Your task to perform on an android device: Open wifi settings Image 0: 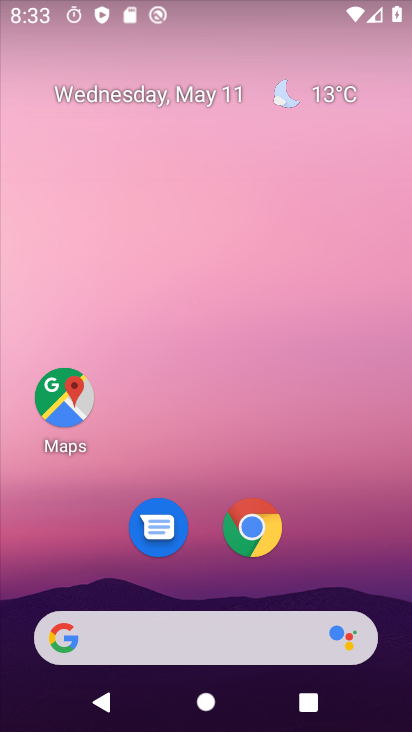
Step 0: drag from (213, 562) to (232, 66)
Your task to perform on an android device: Open wifi settings Image 1: 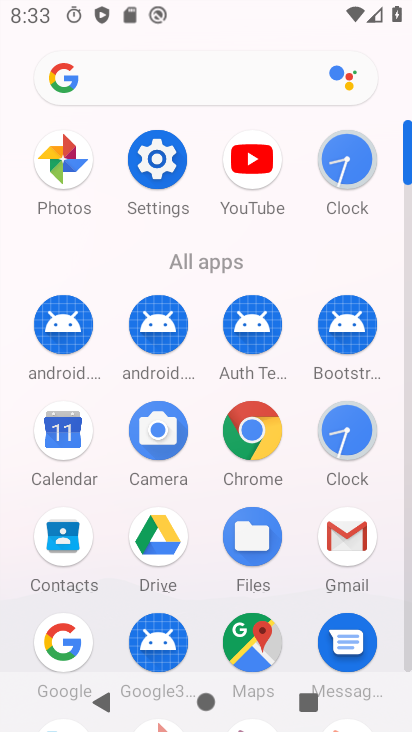
Step 1: click (155, 160)
Your task to perform on an android device: Open wifi settings Image 2: 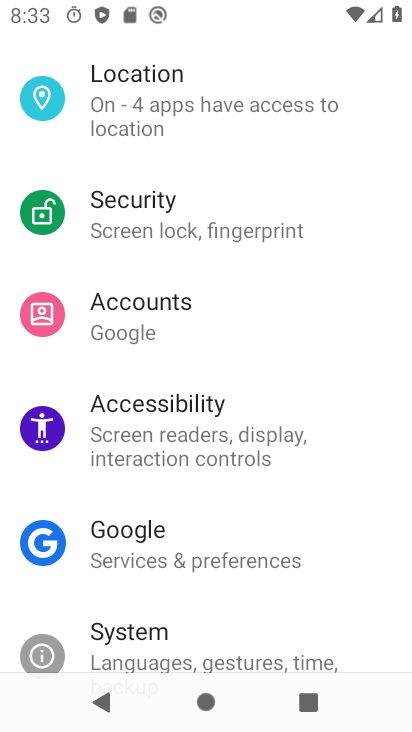
Step 2: drag from (182, 229) to (185, 588)
Your task to perform on an android device: Open wifi settings Image 3: 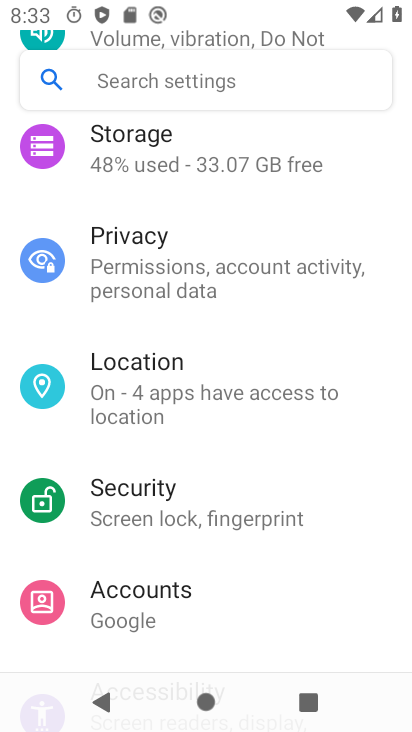
Step 3: drag from (166, 181) to (141, 607)
Your task to perform on an android device: Open wifi settings Image 4: 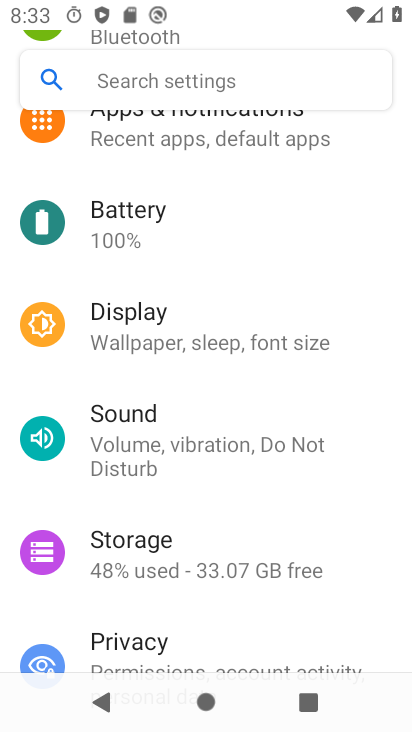
Step 4: drag from (176, 177) to (248, 604)
Your task to perform on an android device: Open wifi settings Image 5: 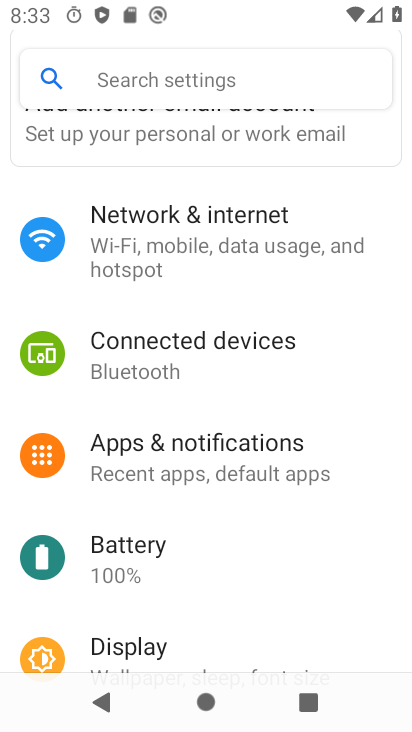
Step 5: click (186, 234)
Your task to perform on an android device: Open wifi settings Image 6: 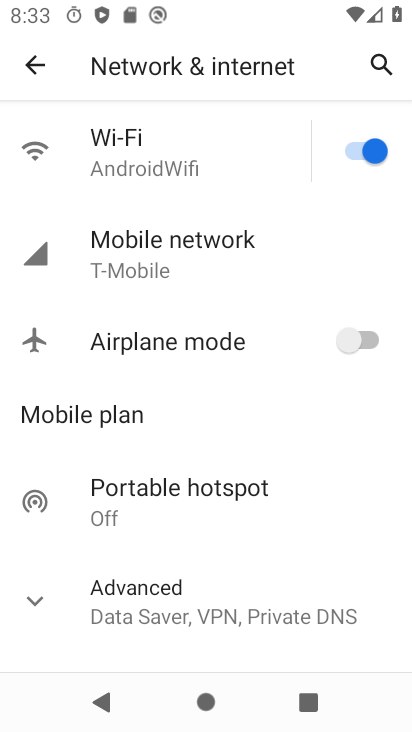
Step 6: click (152, 149)
Your task to perform on an android device: Open wifi settings Image 7: 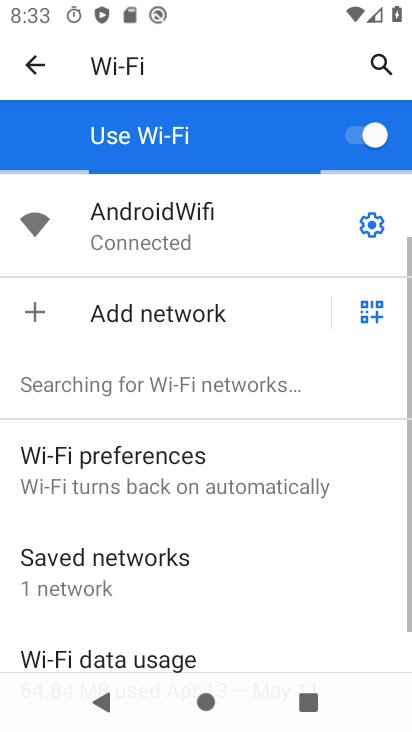
Step 7: click (372, 228)
Your task to perform on an android device: Open wifi settings Image 8: 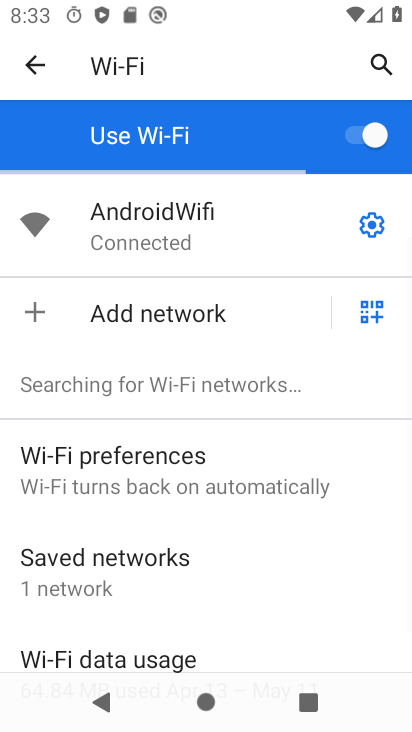
Step 8: click (365, 225)
Your task to perform on an android device: Open wifi settings Image 9: 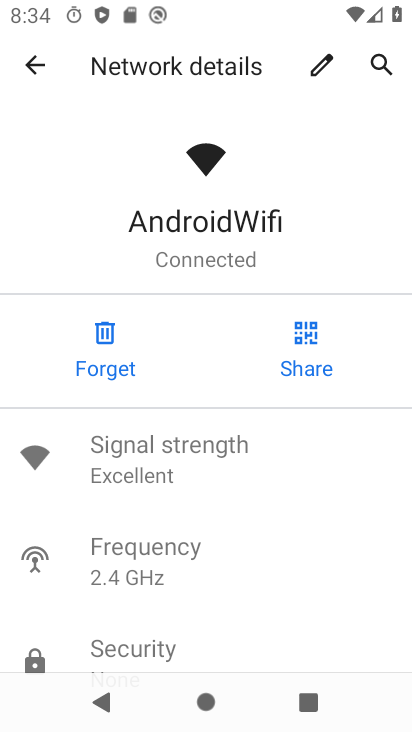
Step 9: task complete